Your task to perform on an android device: Go to Yahoo.com Image 0: 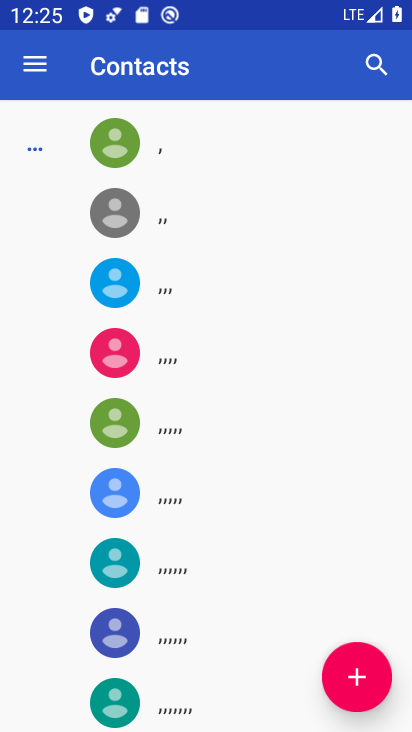
Step 0: press home button
Your task to perform on an android device: Go to Yahoo.com Image 1: 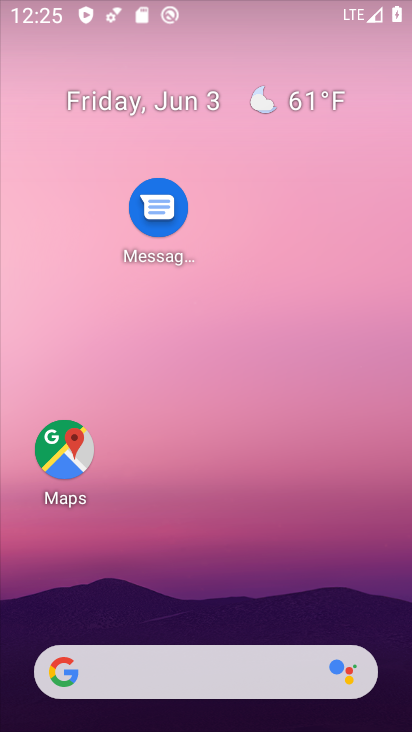
Step 1: drag from (198, 605) to (180, 60)
Your task to perform on an android device: Go to Yahoo.com Image 2: 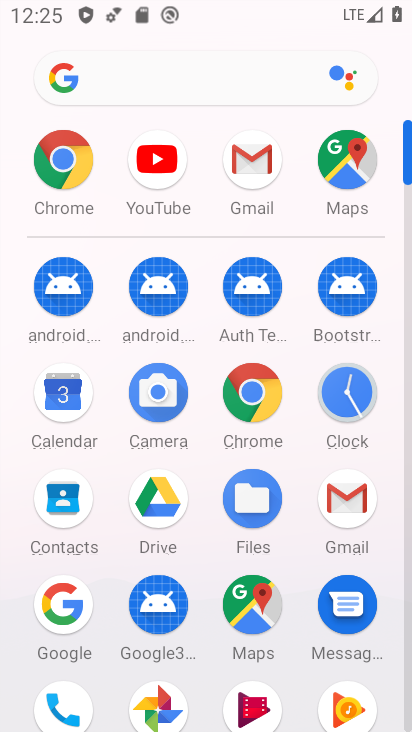
Step 2: click (239, 415)
Your task to perform on an android device: Go to Yahoo.com Image 3: 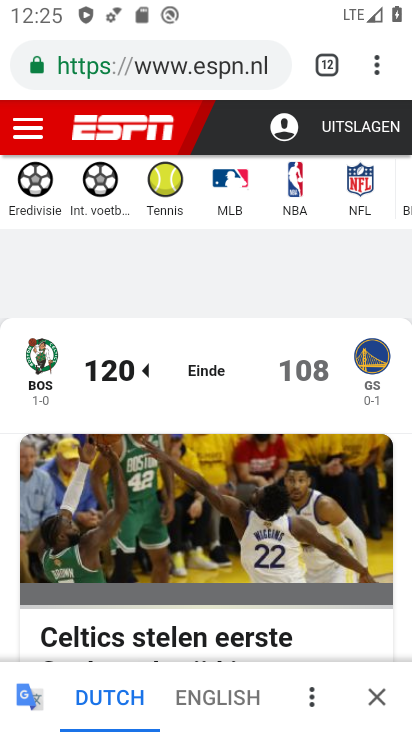
Step 3: click (317, 79)
Your task to perform on an android device: Go to Yahoo.com Image 4: 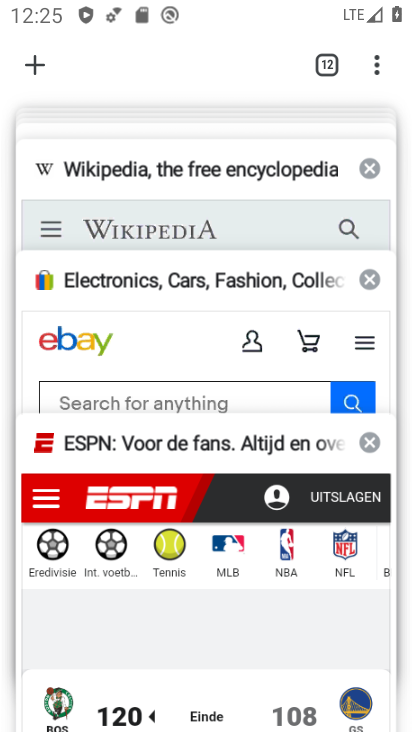
Step 4: click (41, 59)
Your task to perform on an android device: Go to Yahoo.com Image 5: 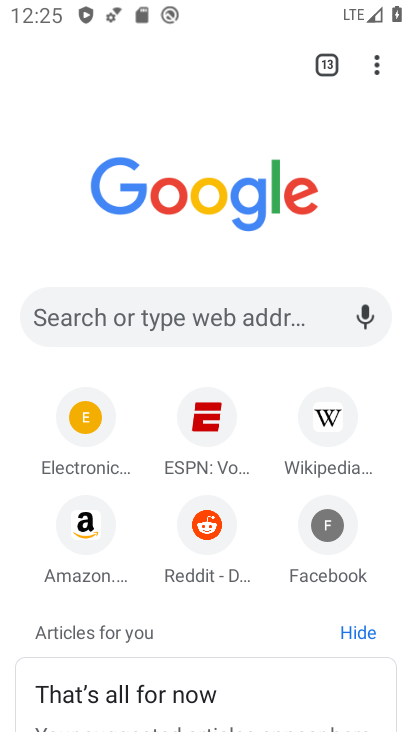
Step 5: click (174, 292)
Your task to perform on an android device: Go to Yahoo.com Image 6: 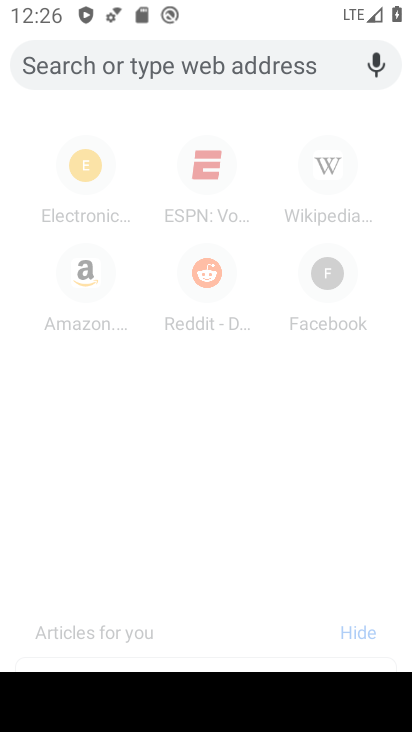
Step 6: type "yahhoo"
Your task to perform on an android device: Go to Yahoo.com Image 7: 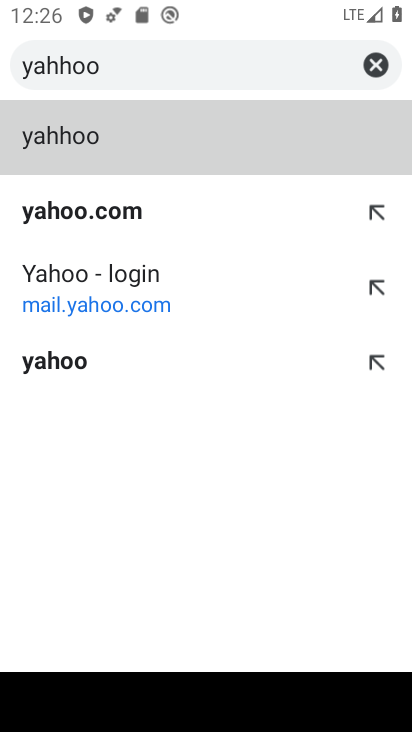
Step 7: click (164, 280)
Your task to perform on an android device: Go to Yahoo.com Image 8: 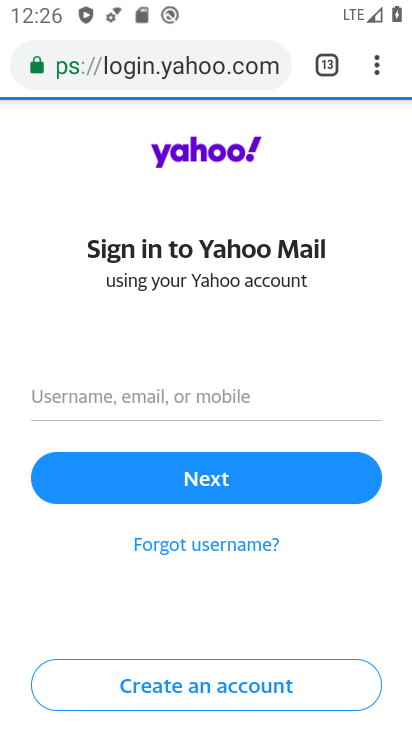
Step 8: task complete